Your task to perform on an android device: open app "Expedia: Hotels, Flights & Car" Image 0: 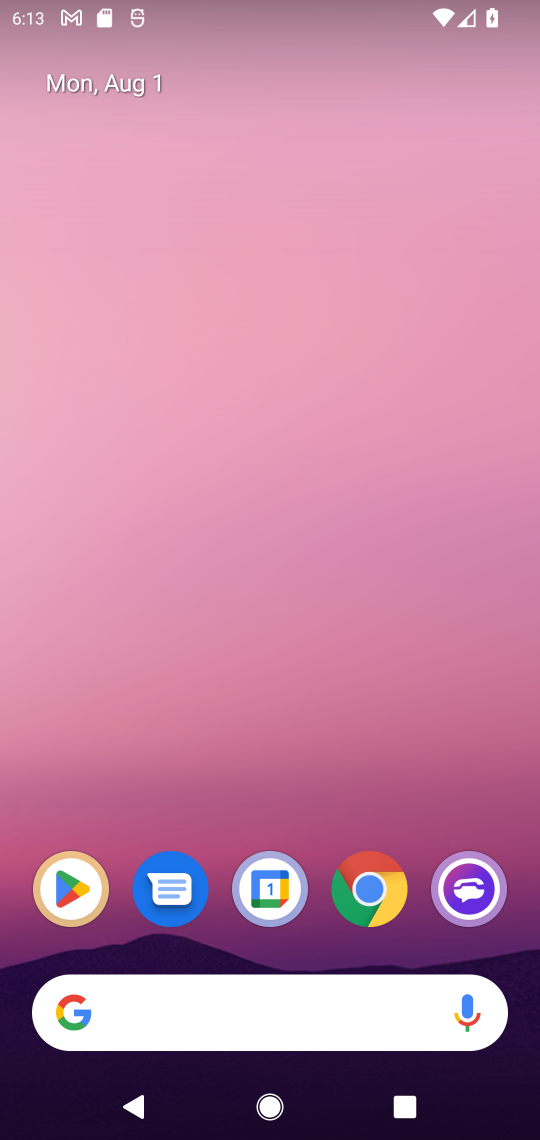
Step 0: drag from (257, 698) to (179, 244)
Your task to perform on an android device: open app "Expedia: Hotels, Flights & Car" Image 1: 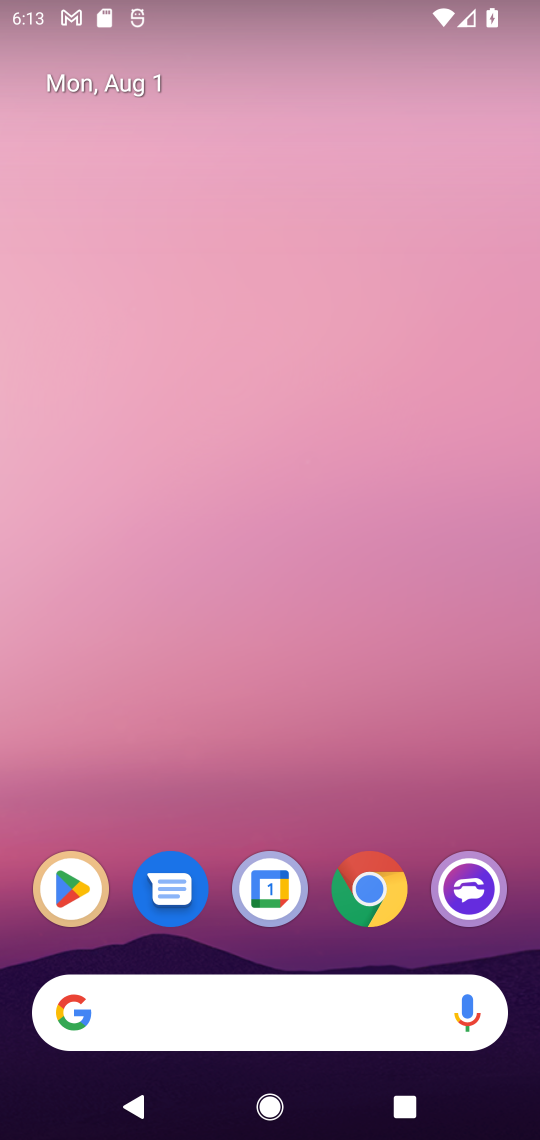
Step 1: drag from (264, 440) to (196, 245)
Your task to perform on an android device: open app "Expedia: Hotels, Flights & Car" Image 2: 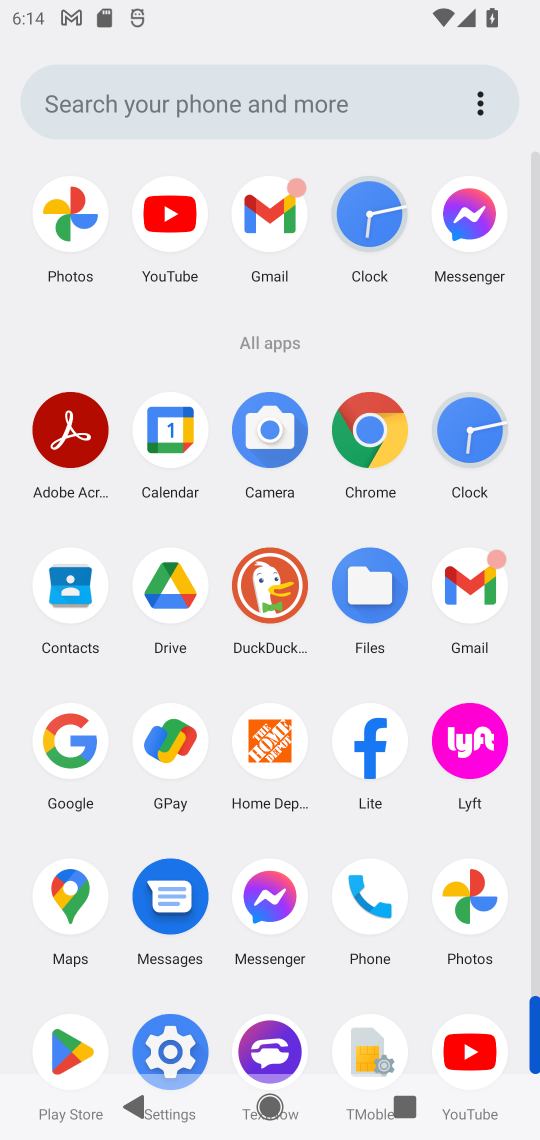
Step 2: drag from (340, 916) to (258, 524)
Your task to perform on an android device: open app "Expedia: Hotels, Flights & Car" Image 3: 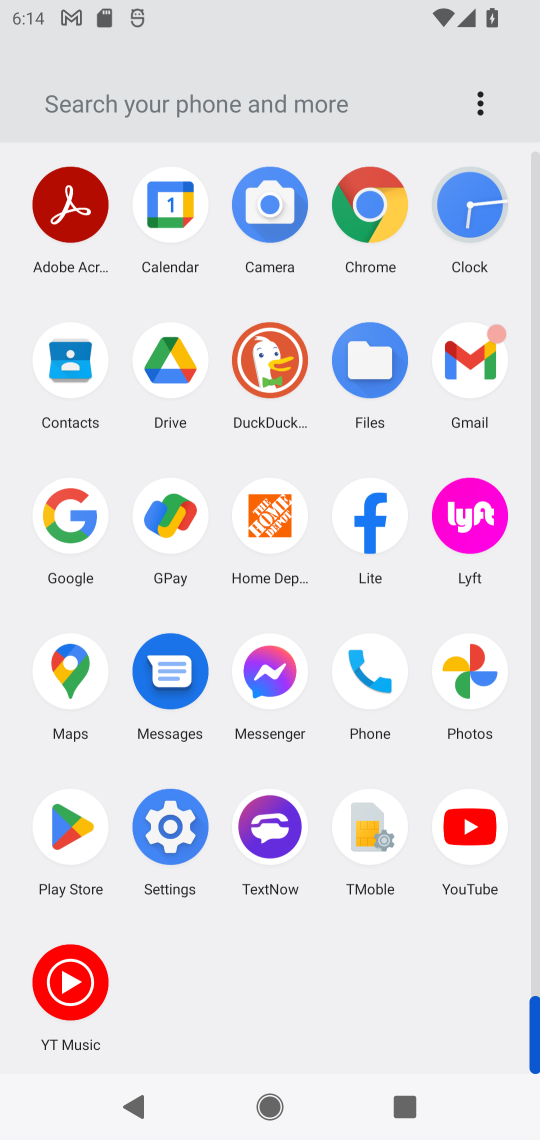
Step 3: click (320, 501)
Your task to perform on an android device: open app "Expedia: Hotels, Flights & Car" Image 4: 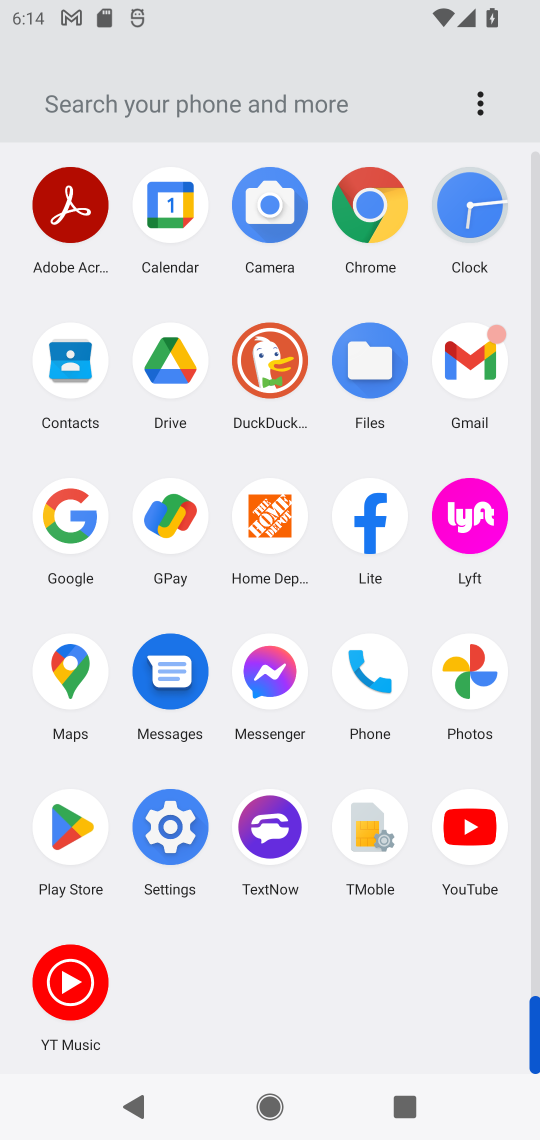
Step 4: click (65, 1033)
Your task to perform on an android device: open app "Expedia: Hotels, Flights & Car" Image 5: 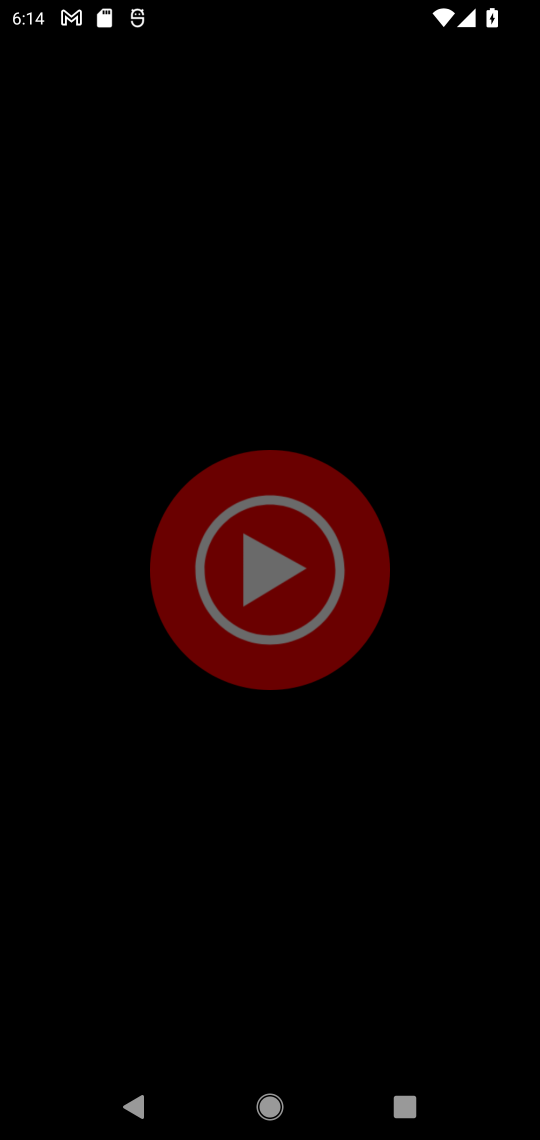
Step 5: press back button
Your task to perform on an android device: open app "Expedia: Hotels, Flights & Car" Image 6: 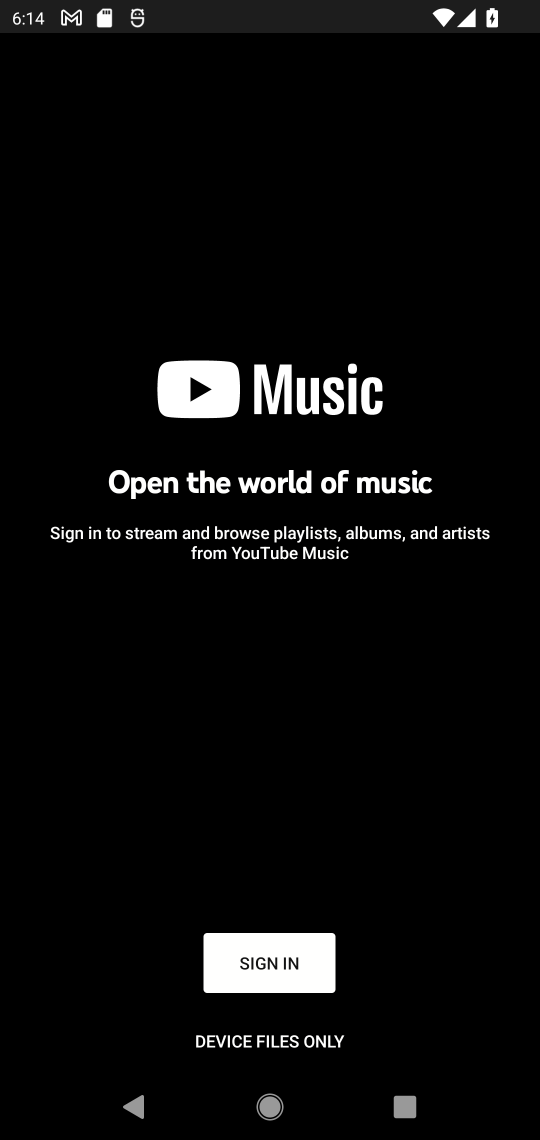
Step 6: press back button
Your task to perform on an android device: open app "Expedia: Hotels, Flights & Car" Image 7: 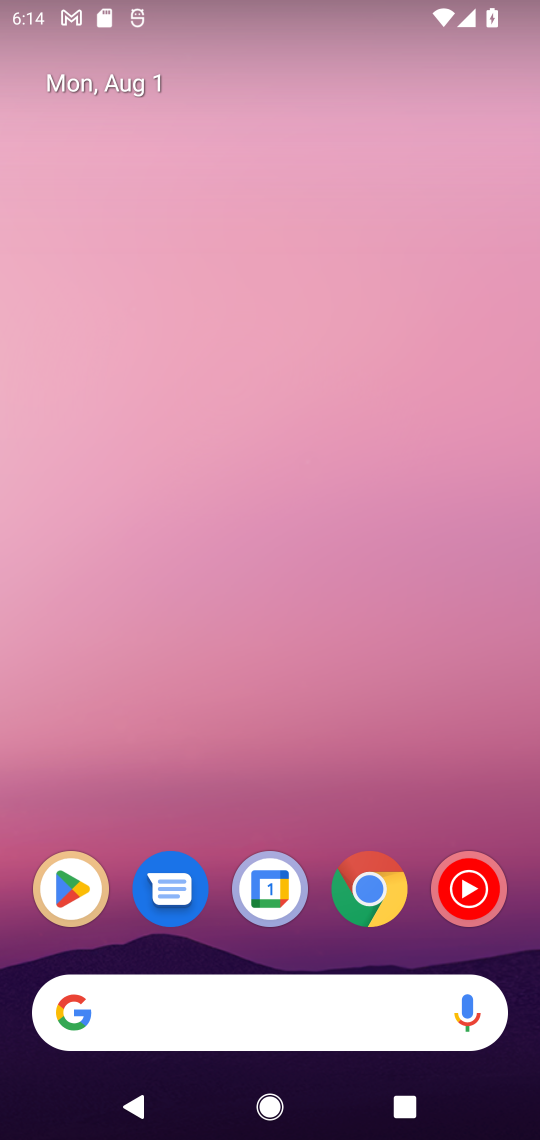
Step 7: drag from (295, 1018) to (252, 545)
Your task to perform on an android device: open app "Expedia: Hotels, Flights & Car" Image 8: 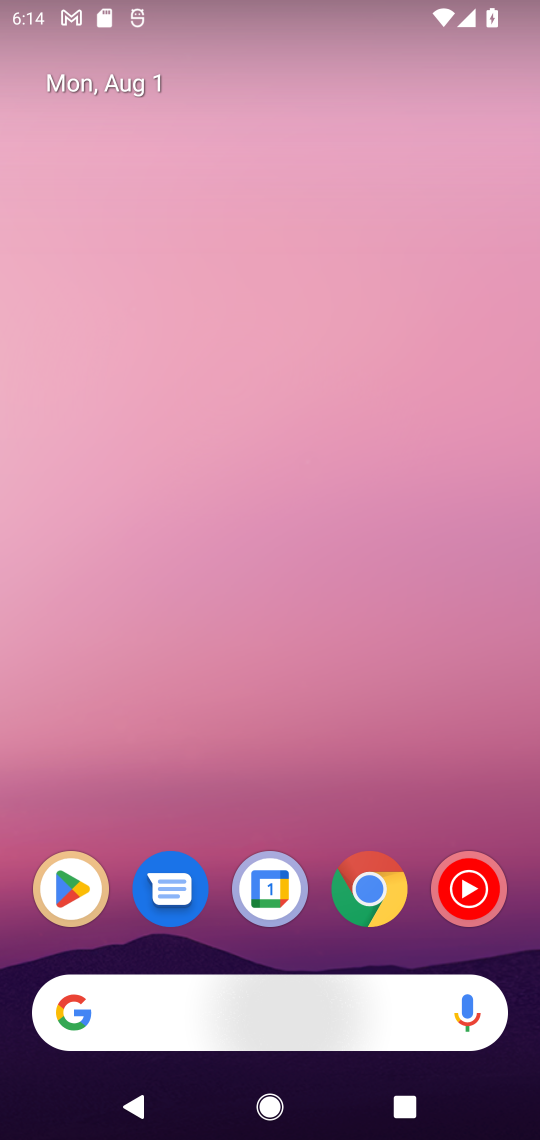
Step 8: drag from (267, 767) to (281, 462)
Your task to perform on an android device: open app "Expedia: Hotels, Flights & Car" Image 9: 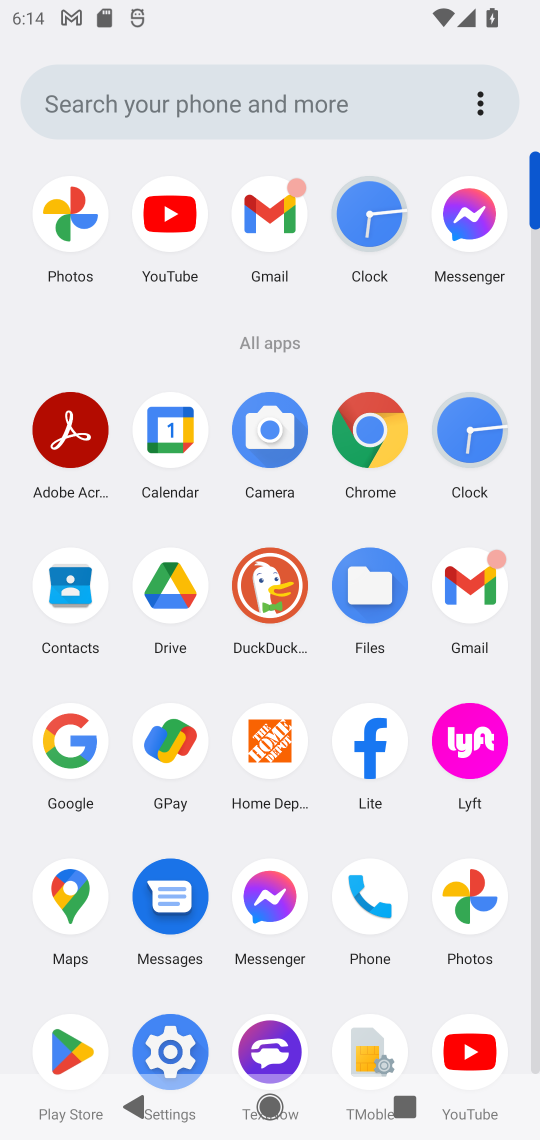
Step 9: click (50, 1023)
Your task to perform on an android device: open app "Expedia: Hotels, Flights & Car" Image 10: 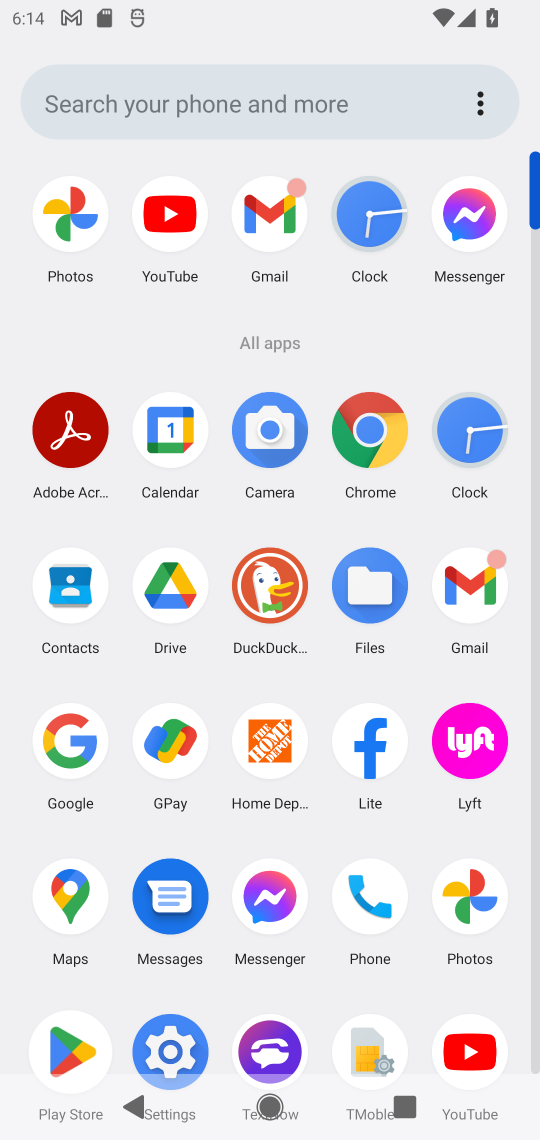
Step 10: click (69, 1030)
Your task to perform on an android device: open app "Expedia: Hotels, Flights & Car" Image 11: 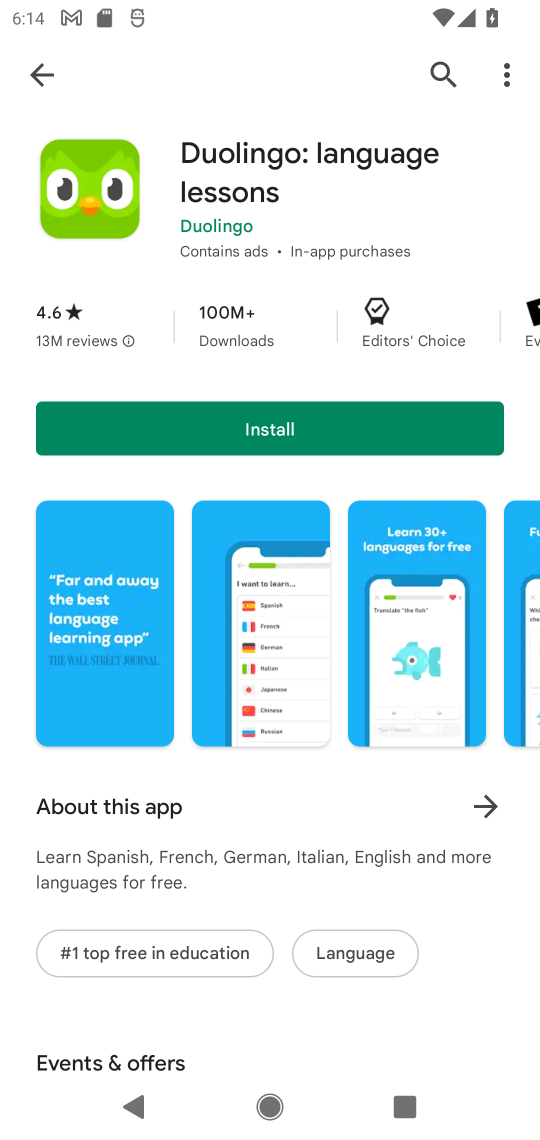
Step 11: click (92, 1029)
Your task to perform on an android device: open app "Expedia: Hotels, Flights & Car" Image 12: 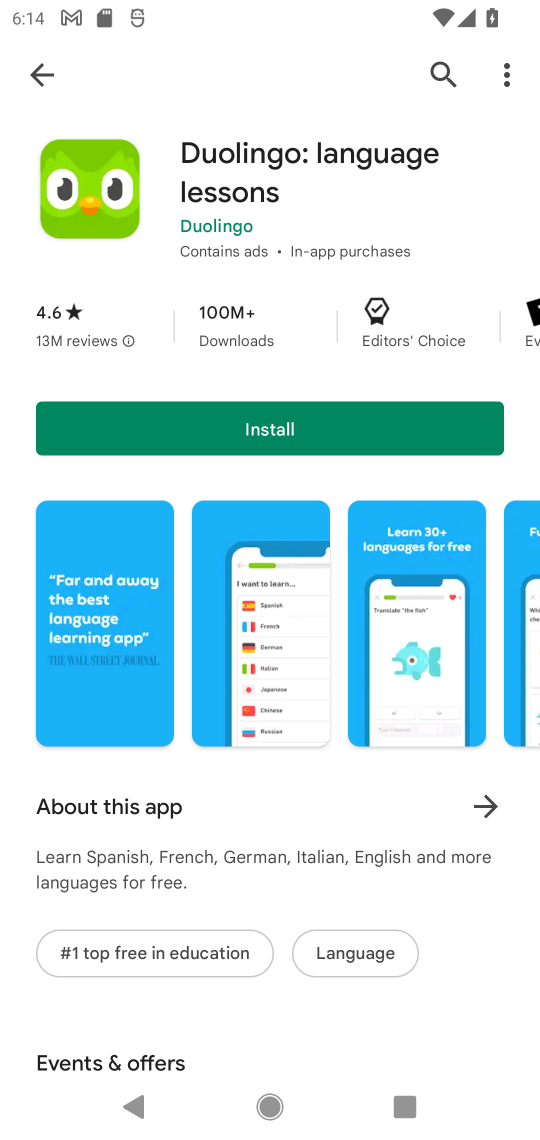
Step 12: click (35, 64)
Your task to perform on an android device: open app "Expedia: Hotels, Flights & Car" Image 13: 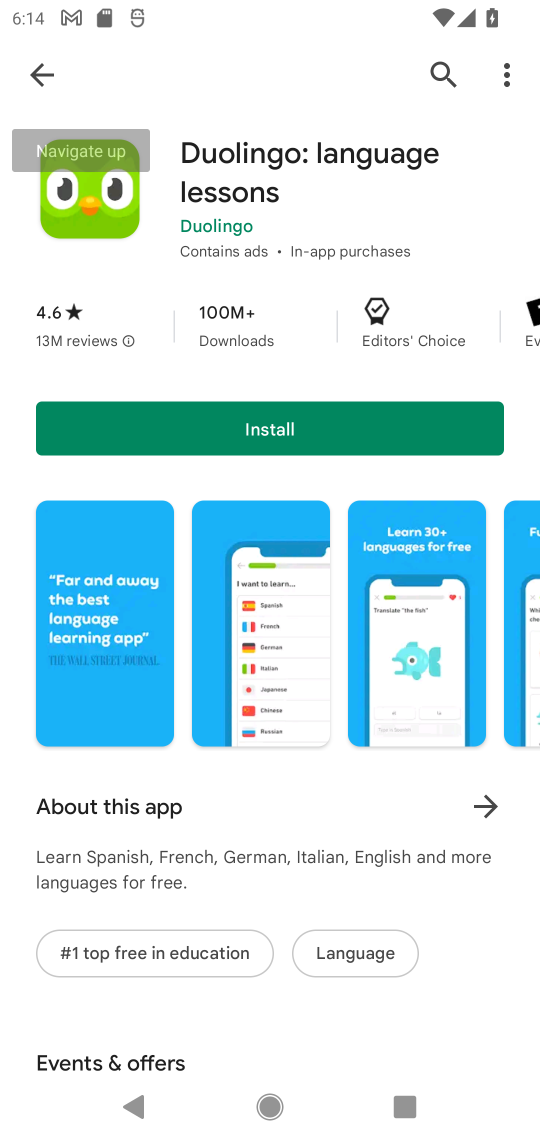
Step 13: click (40, 71)
Your task to perform on an android device: open app "Expedia: Hotels, Flights & Car" Image 14: 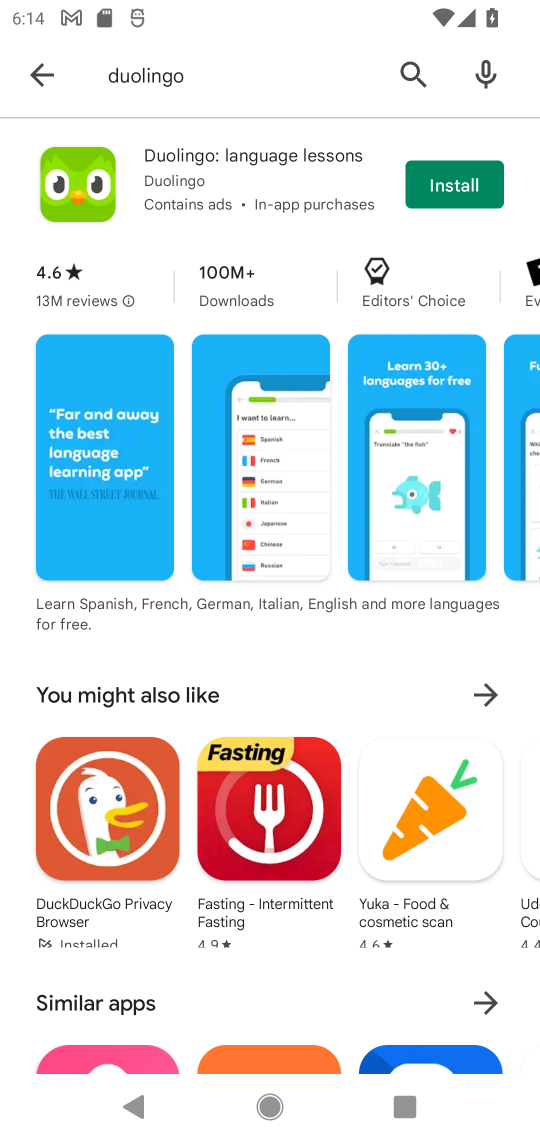
Step 14: click (50, 66)
Your task to perform on an android device: open app "Expedia: Hotels, Flights & Car" Image 15: 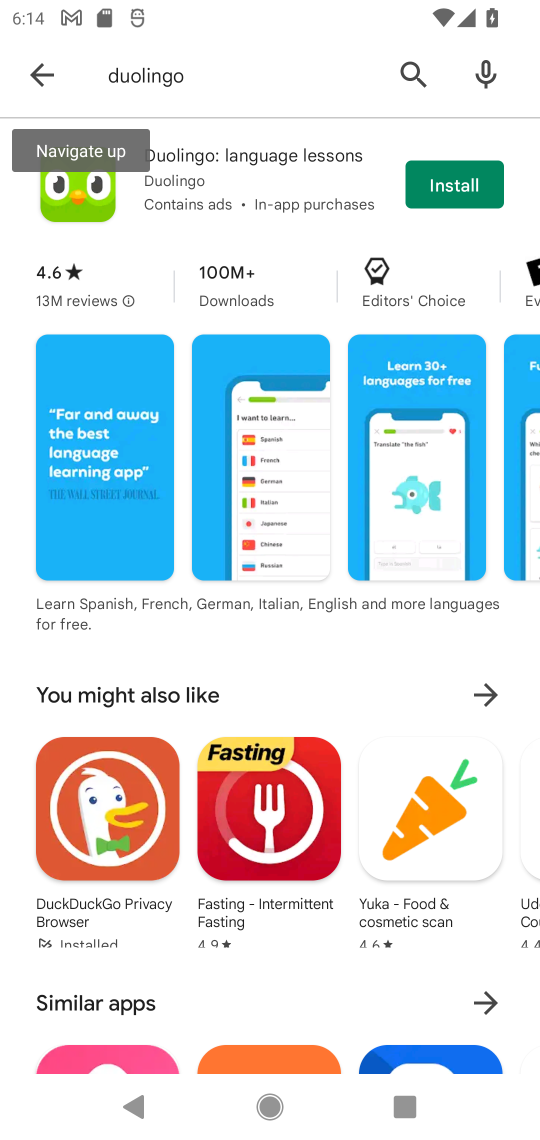
Step 15: click (35, 68)
Your task to perform on an android device: open app "Expedia: Hotels, Flights & Car" Image 16: 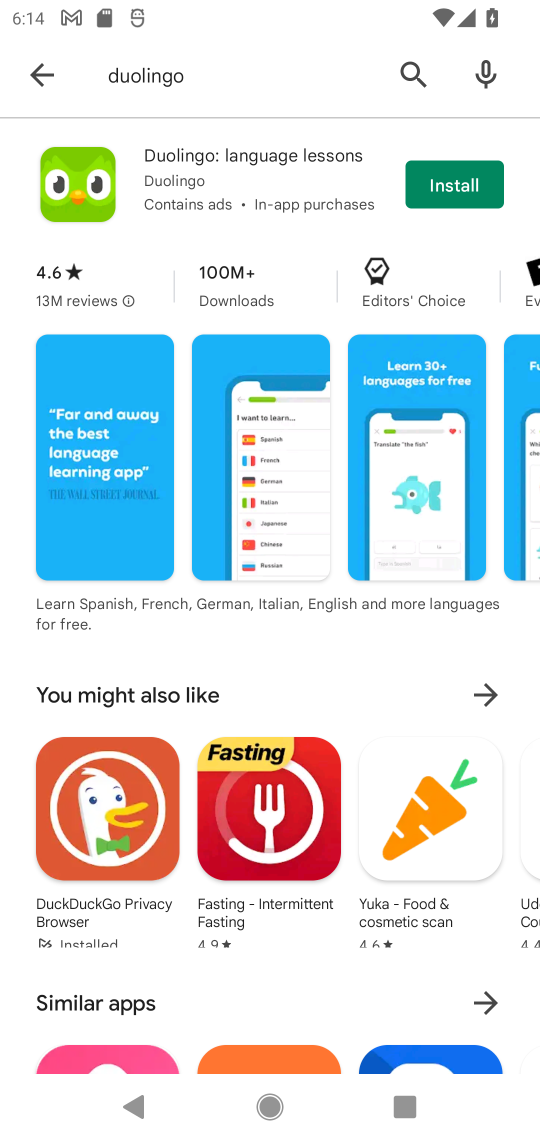
Step 16: click (33, 94)
Your task to perform on an android device: open app "Expedia: Hotels, Flights & Car" Image 17: 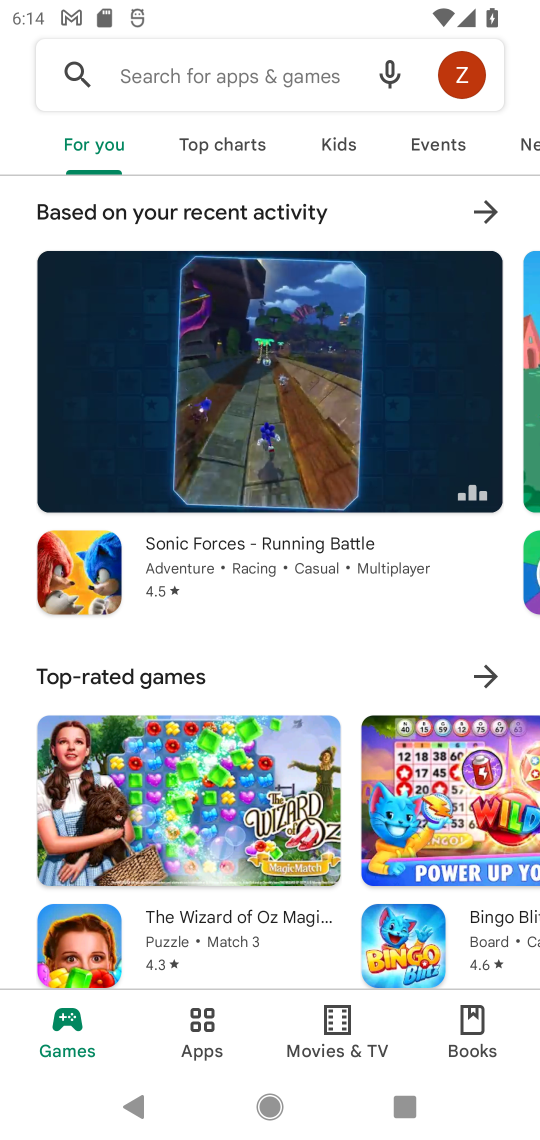
Step 17: click (141, 79)
Your task to perform on an android device: open app "Expedia: Hotels, Flights & Car" Image 18: 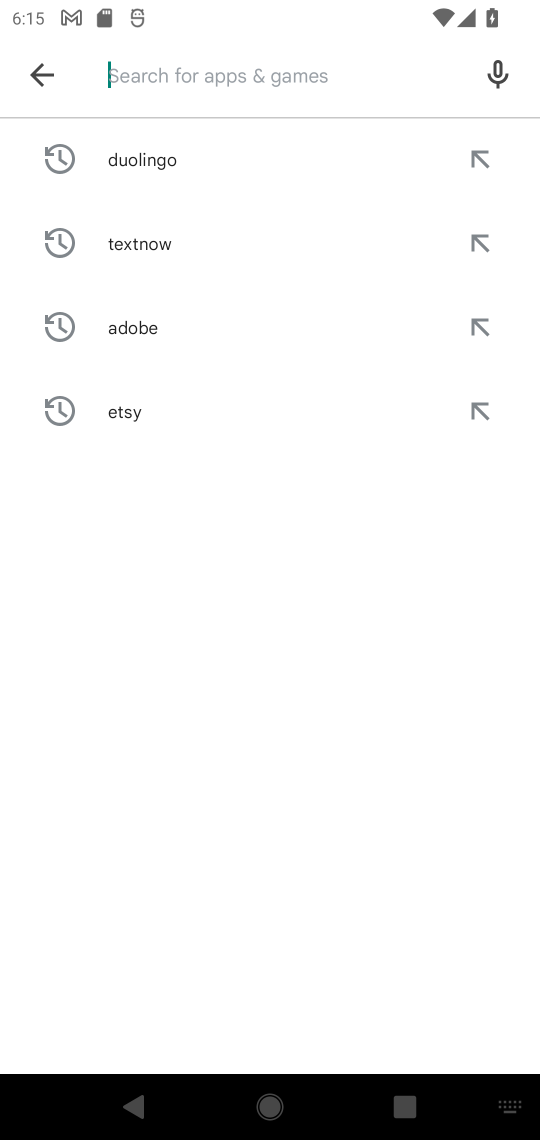
Step 18: type "Expedia"
Your task to perform on an android device: open app "Expedia: Hotels, Flights & Car" Image 19: 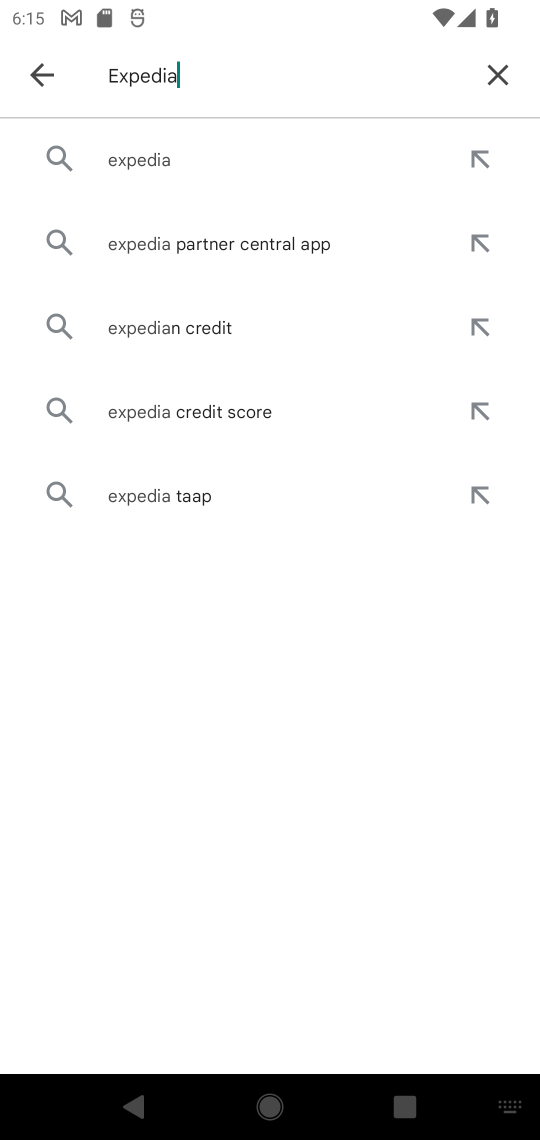
Step 19: click (143, 167)
Your task to perform on an android device: open app "Expedia: Hotels, Flights & Car" Image 20: 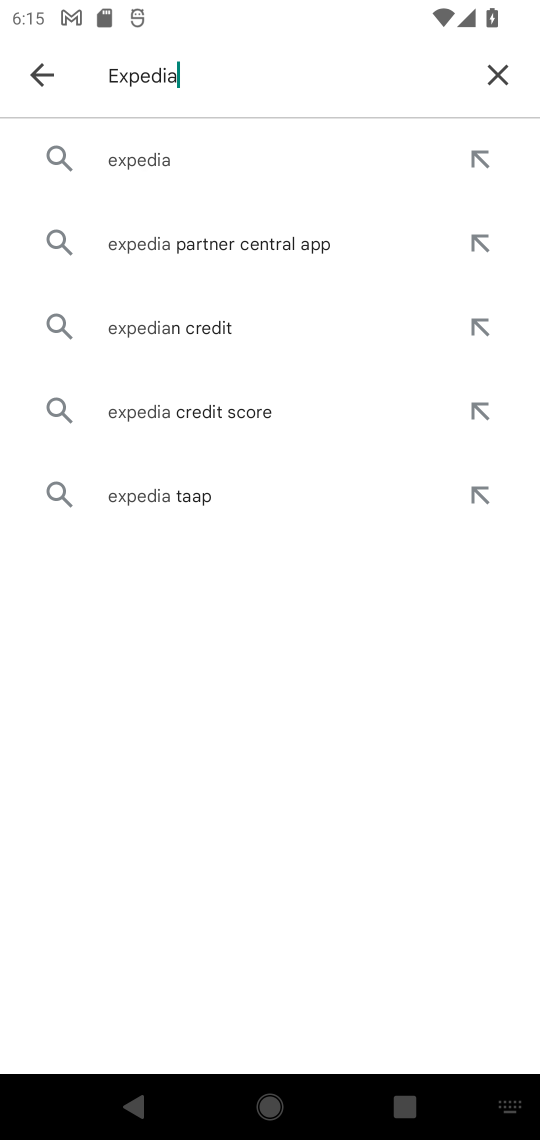
Step 20: click (147, 168)
Your task to perform on an android device: open app "Expedia: Hotels, Flights & Car" Image 21: 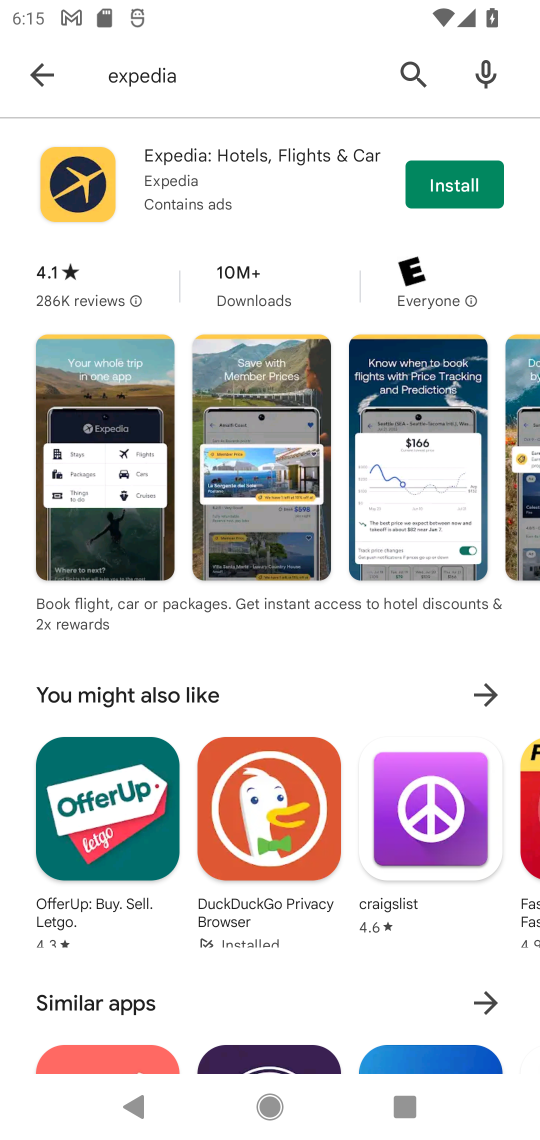
Step 21: click (454, 185)
Your task to perform on an android device: open app "Expedia: Hotels, Flights & Car" Image 22: 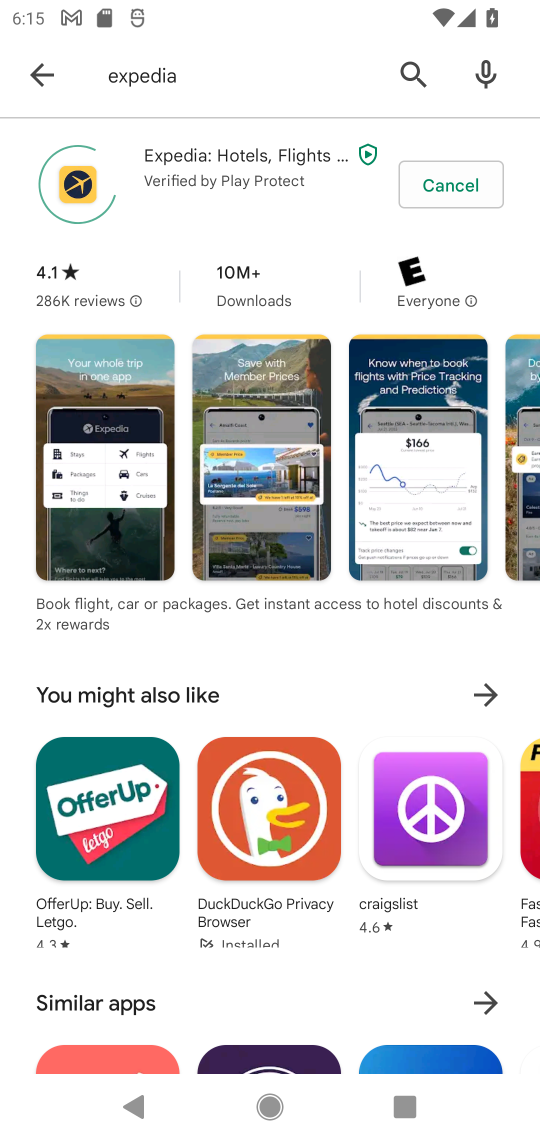
Step 22: click (480, 188)
Your task to perform on an android device: open app "Expedia: Hotels, Flights & Car" Image 23: 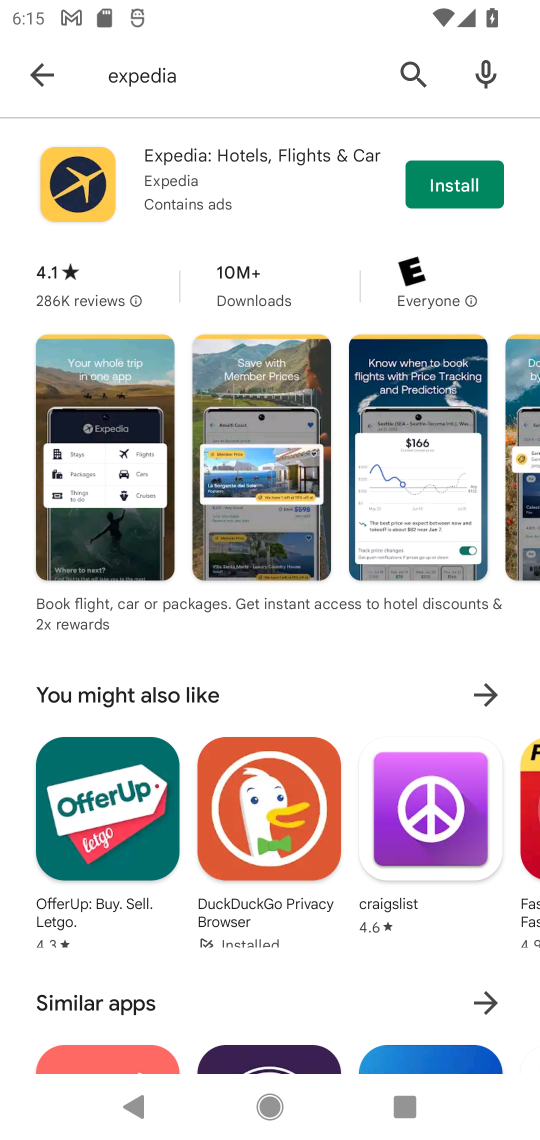
Step 23: click (460, 194)
Your task to perform on an android device: open app "Expedia: Hotels, Flights & Car" Image 24: 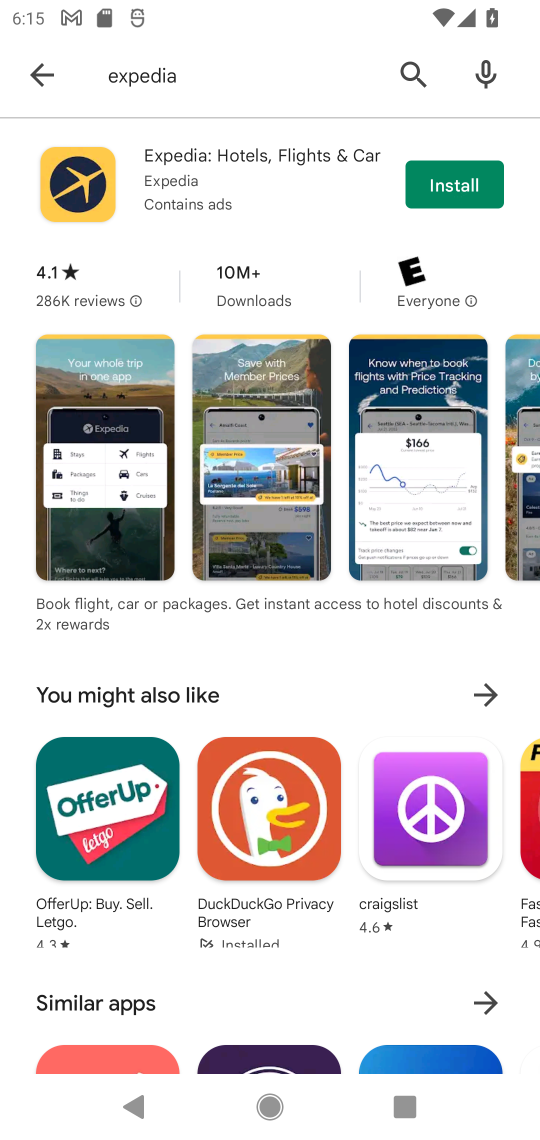
Step 24: click (459, 195)
Your task to perform on an android device: open app "Expedia: Hotels, Flights & Car" Image 25: 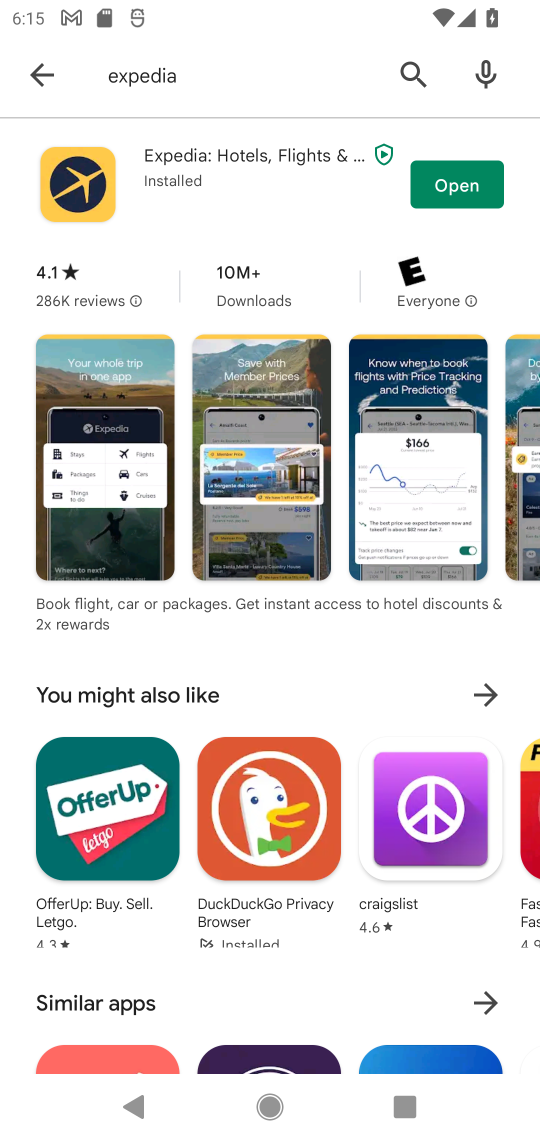
Step 25: click (504, 172)
Your task to perform on an android device: open app "Expedia: Hotels, Flights & Car" Image 26: 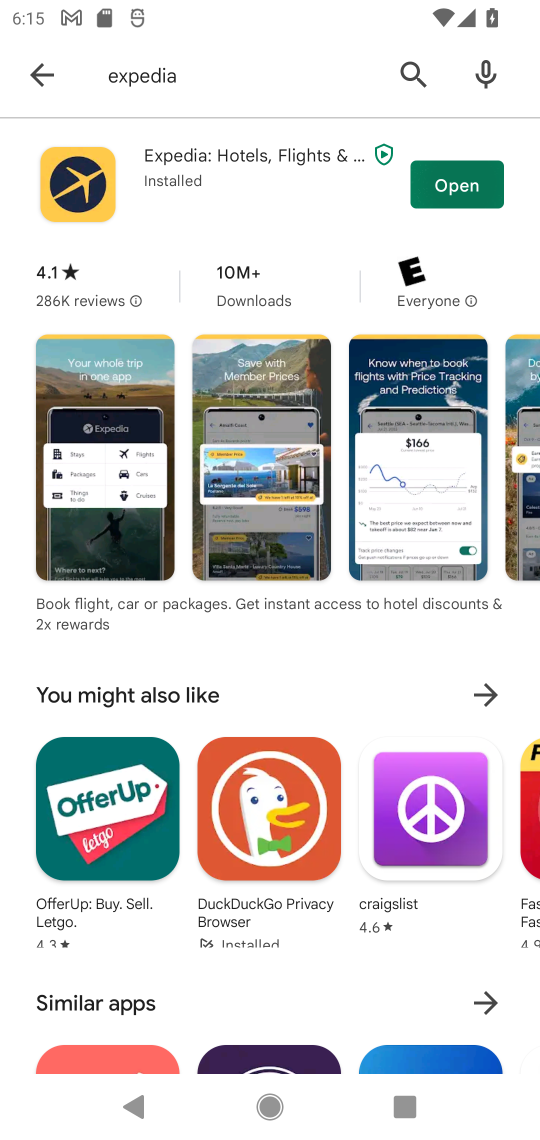
Step 26: click (469, 184)
Your task to perform on an android device: open app "Expedia: Hotels, Flights & Car" Image 27: 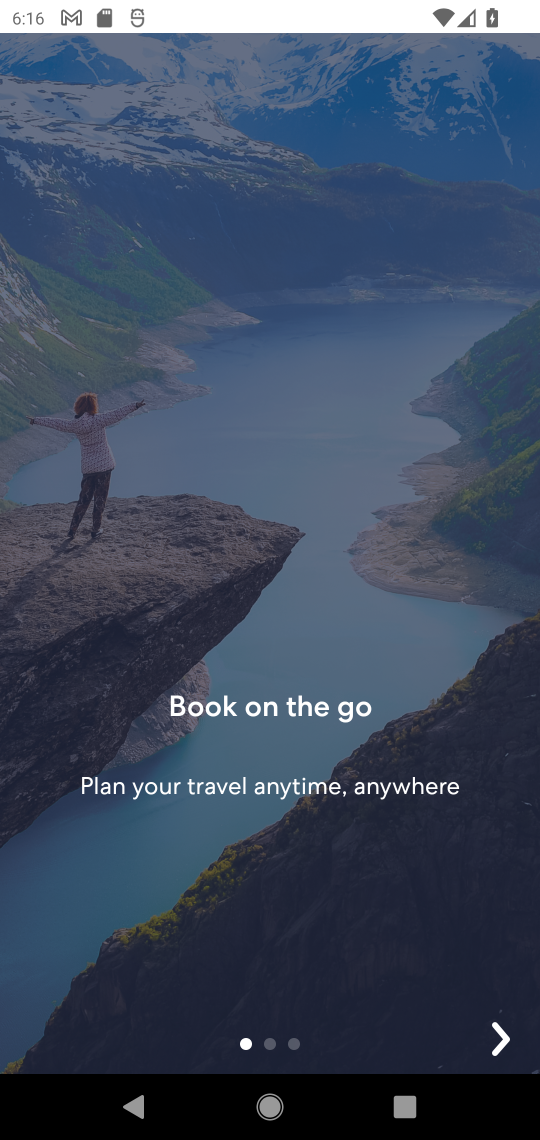
Step 27: press back button
Your task to perform on an android device: open app "Expedia: Hotels, Flights & Car" Image 28: 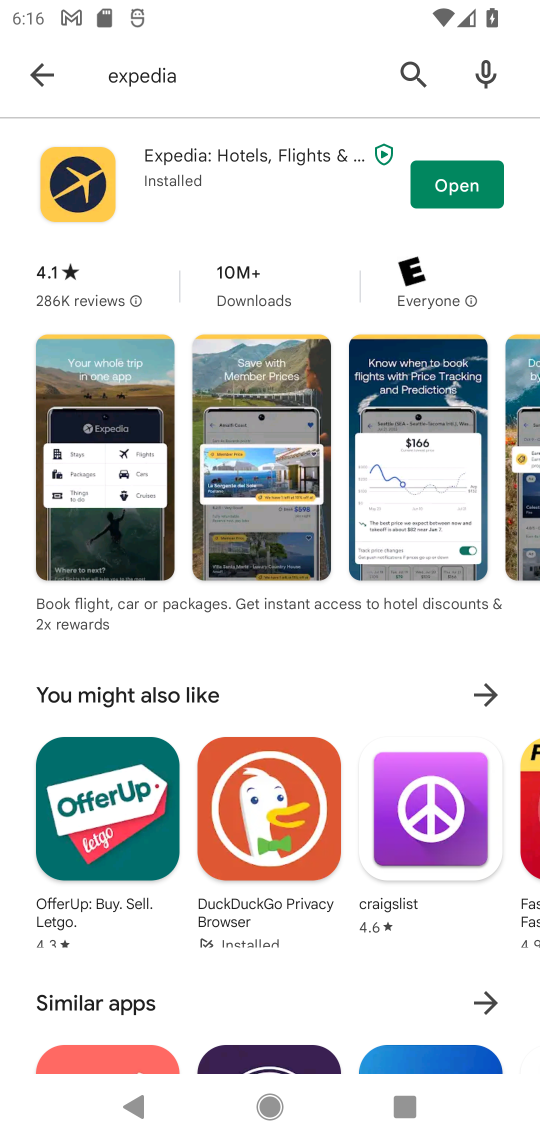
Step 28: click (444, 183)
Your task to perform on an android device: open app "Expedia: Hotels, Flights & Car" Image 29: 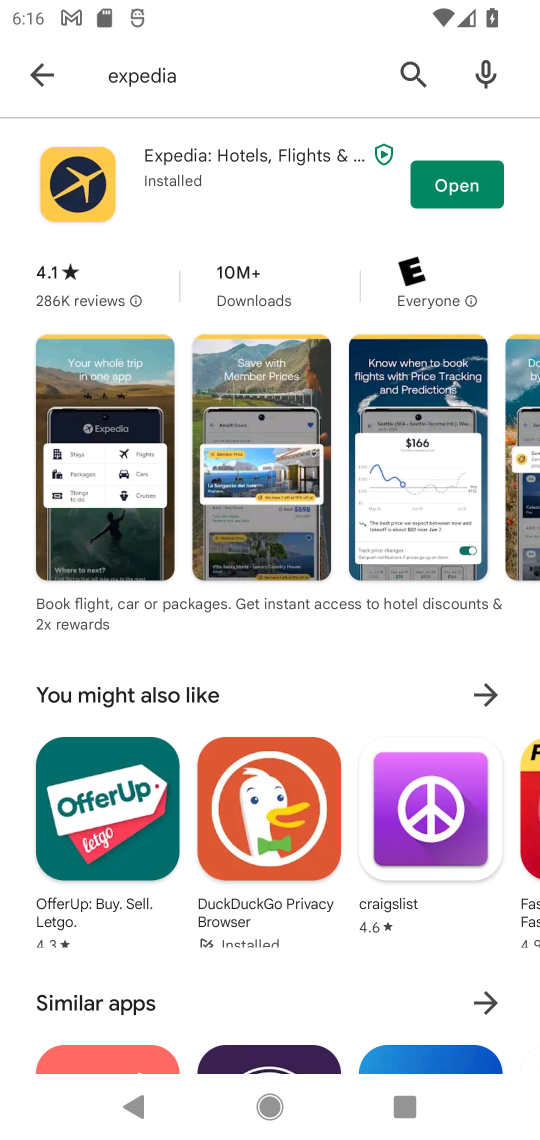
Step 29: click (448, 180)
Your task to perform on an android device: open app "Expedia: Hotels, Flights & Car" Image 30: 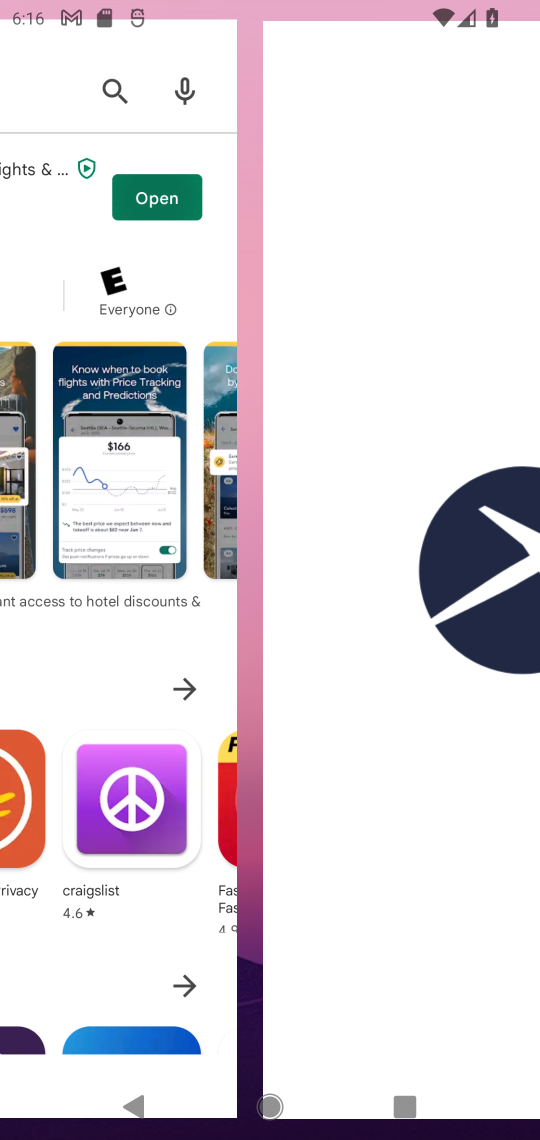
Step 30: click (451, 183)
Your task to perform on an android device: open app "Expedia: Hotels, Flights & Car" Image 31: 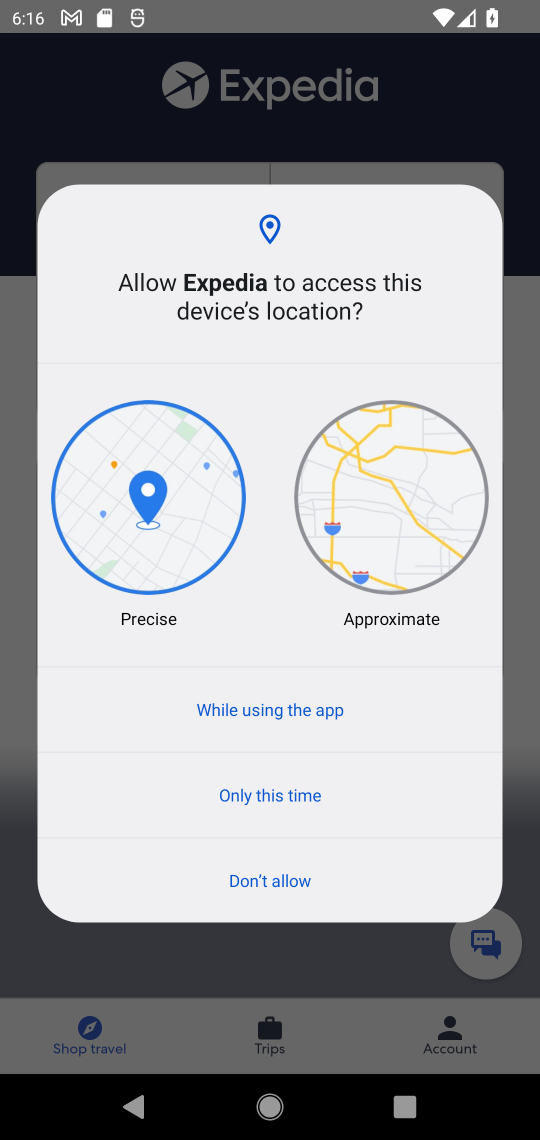
Step 31: click (255, 85)
Your task to perform on an android device: open app "Expedia: Hotels, Flights & Car" Image 32: 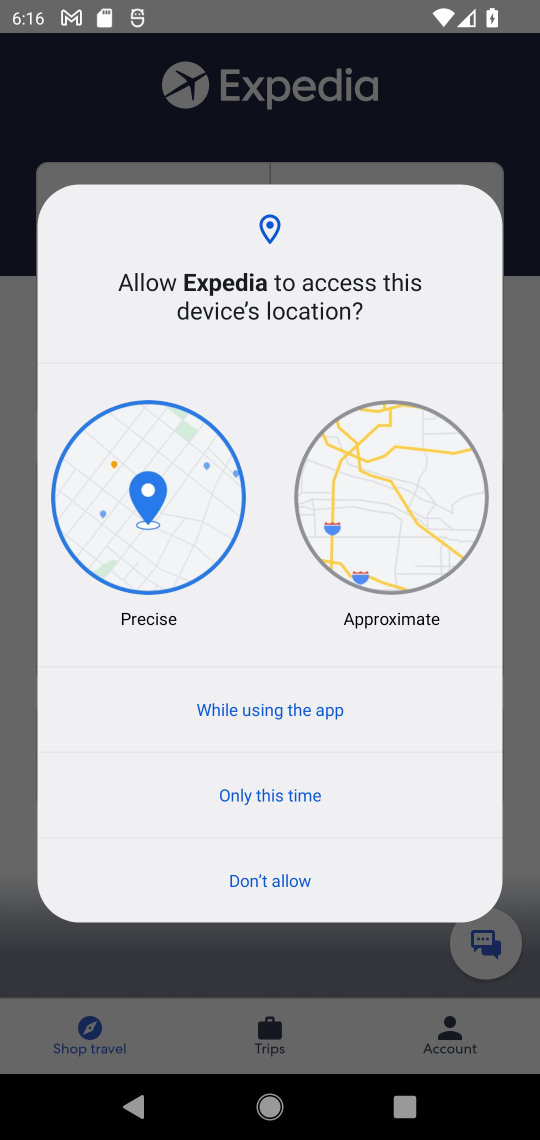
Step 32: click (258, 85)
Your task to perform on an android device: open app "Expedia: Hotels, Flights & Car" Image 33: 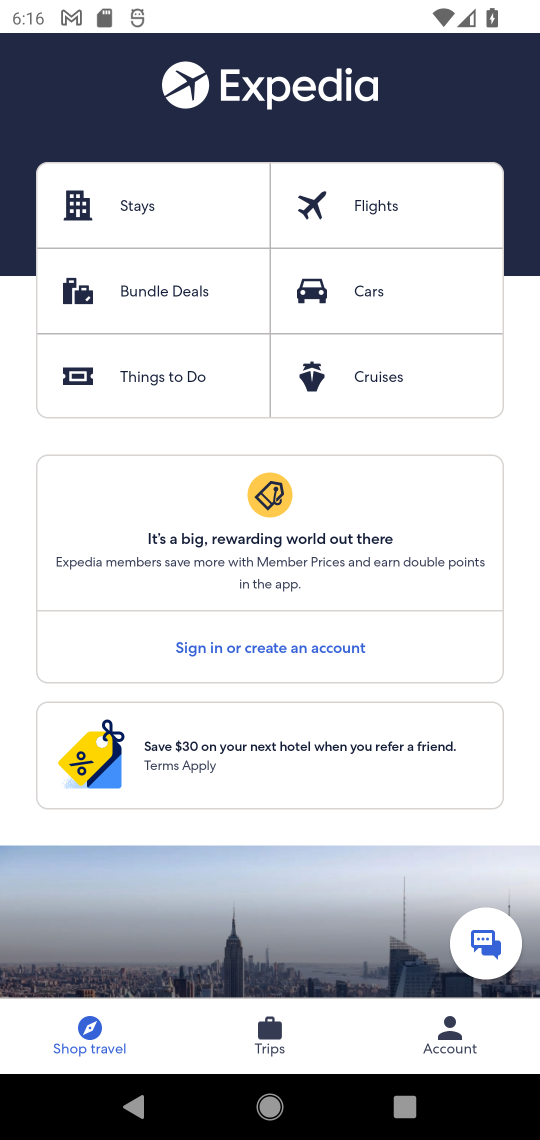
Step 33: task complete